Your task to perform on an android device: set the stopwatch Image 0: 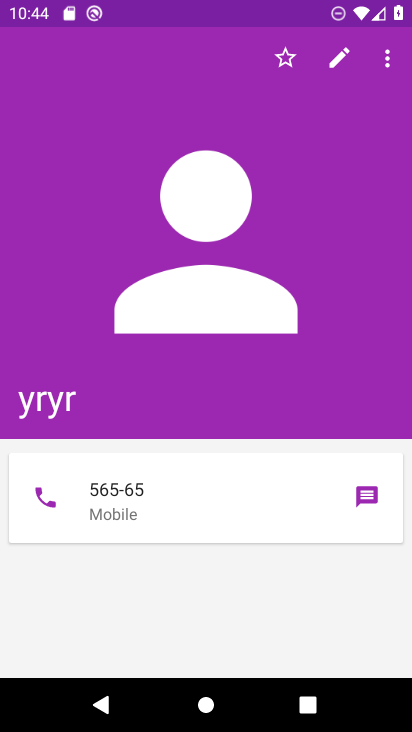
Step 0: press home button
Your task to perform on an android device: set the stopwatch Image 1: 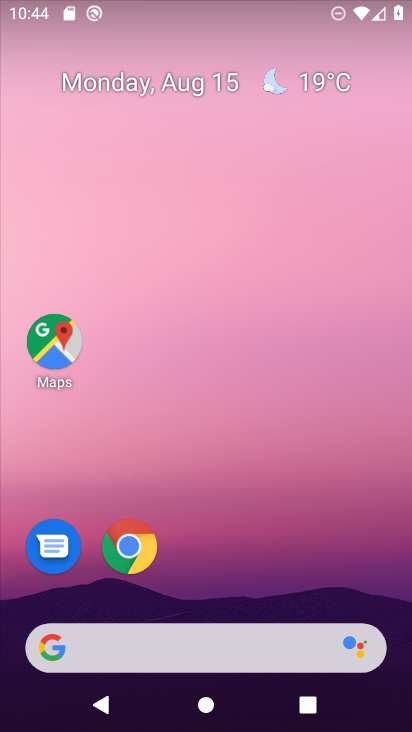
Step 1: drag from (257, 591) to (233, 98)
Your task to perform on an android device: set the stopwatch Image 2: 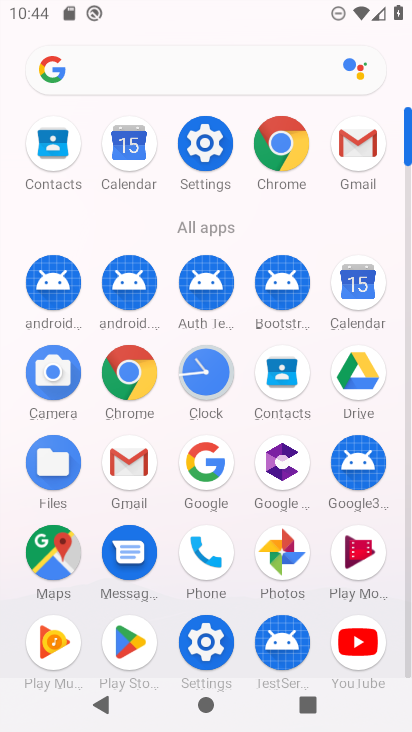
Step 2: click (211, 377)
Your task to perform on an android device: set the stopwatch Image 3: 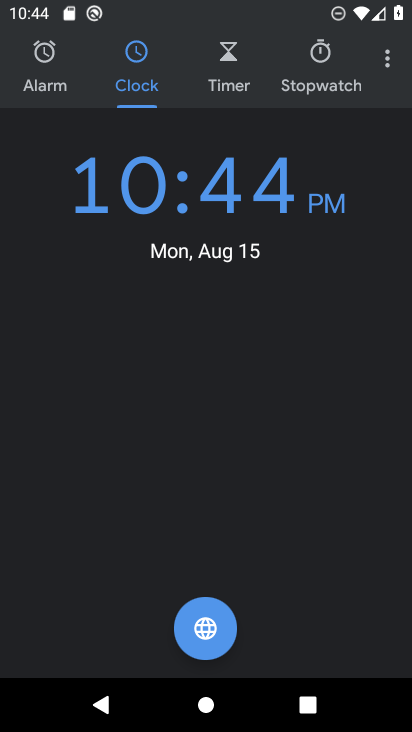
Step 3: click (331, 60)
Your task to perform on an android device: set the stopwatch Image 4: 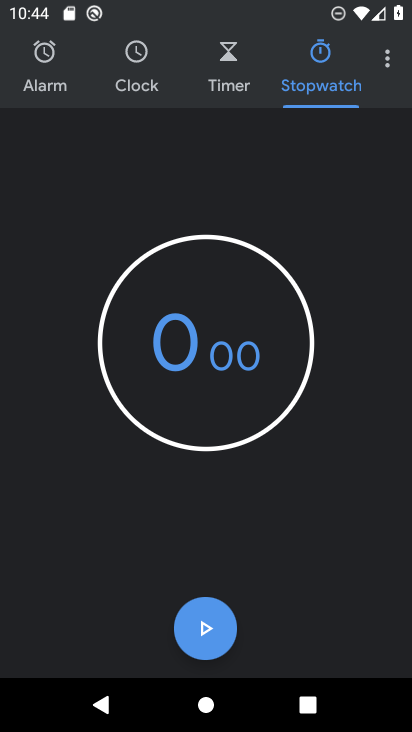
Step 4: click (210, 635)
Your task to perform on an android device: set the stopwatch Image 5: 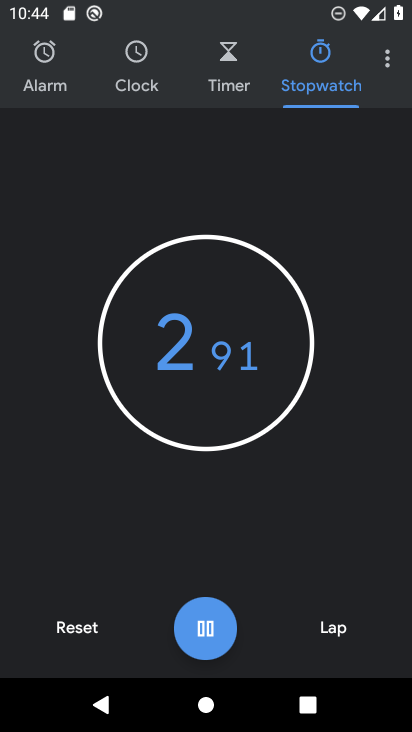
Step 5: type "878787"
Your task to perform on an android device: set the stopwatch Image 6: 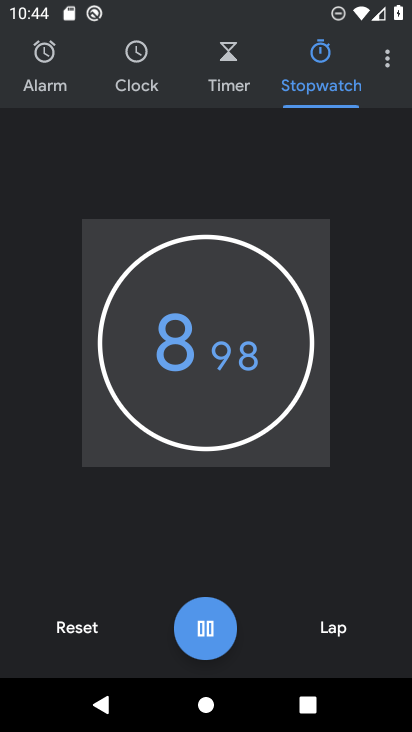
Step 6: task complete